Your task to perform on an android device: turn pop-ups off in chrome Image 0: 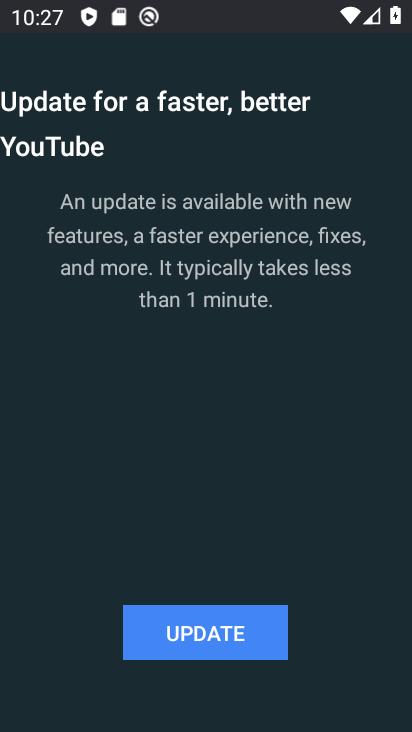
Step 0: press home button
Your task to perform on an android device: turn pop-ups off in chrome Image 1: 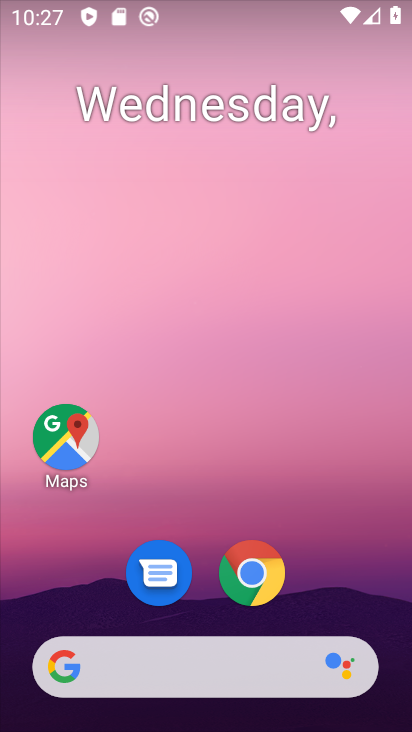
Step 1: click (232, 569)
Your task to perform on an android device: turn pop-ups off in chrome Image 2: 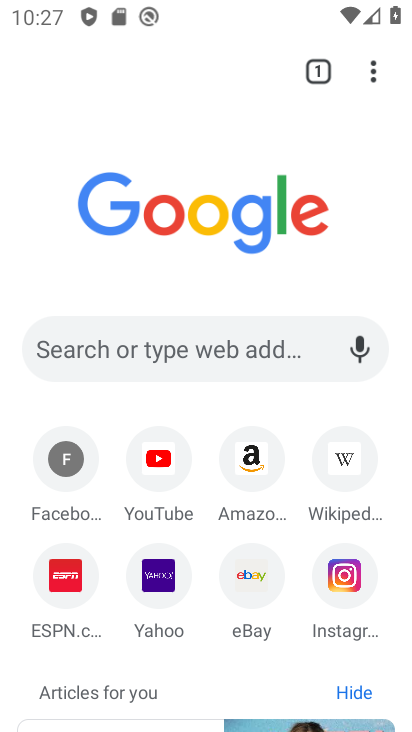
Step 2: drag from (376, 71) to (240, 609)
Your task to perform on an android device: turn pop-ups off in chrome Image 3: 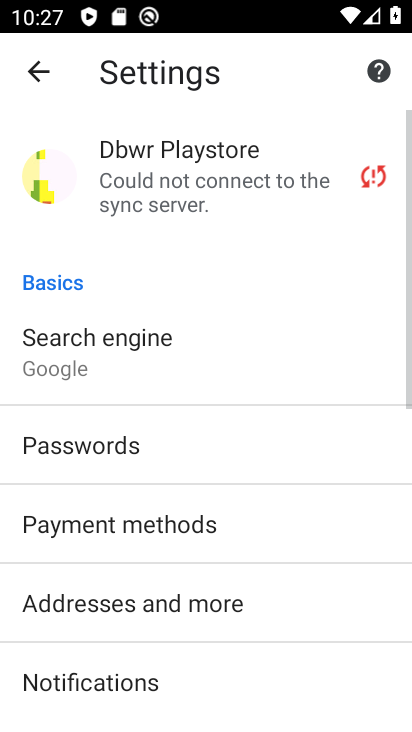
Step 3: drag from (209, 664) to (206, 311)
Your task to perform on an android device: turn pop-ups off in chrome Image 4: 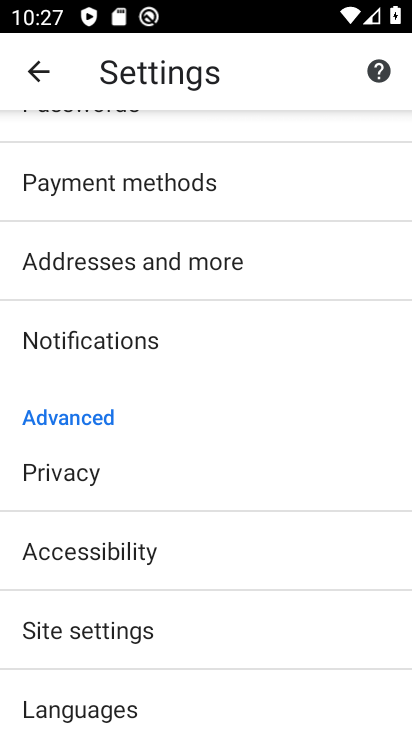
Step 4: drag from (172, 683) to (187, 568)
Your task to perform on an android device: turn pop-ups off in chrome Image 5: 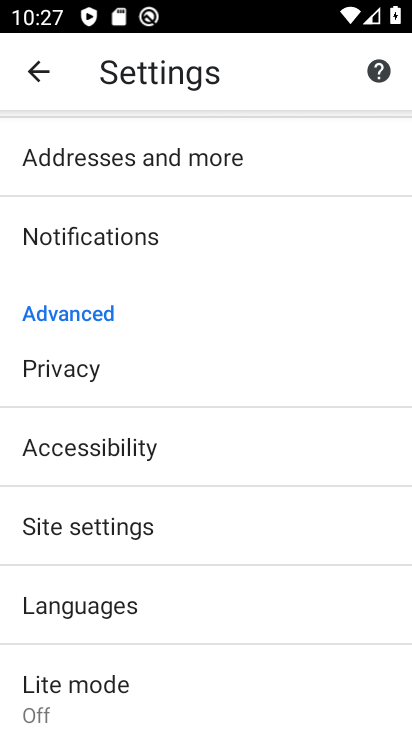
Step 5: drag from (171, 689) to (182, 494)
Your task to perform on an android device: turn pop-ups off in chrome Image 6: 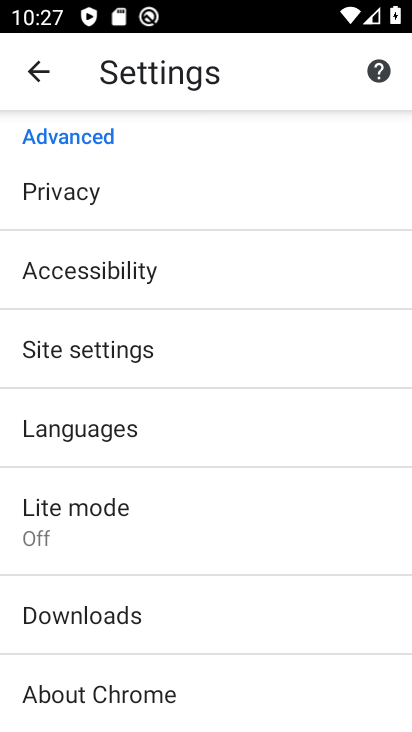
Step 6: drag from (257, 630) to (305, 346)
Your task to perform on an android device: turn pop-ups off in chrome Image 7: 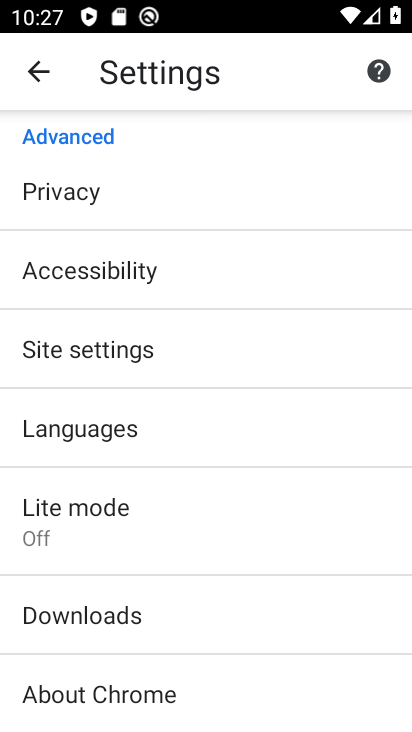
Step 7: drag from (209, 654) to (230, 390)
Your task to perform on an android device: turn pop-ups off in chrome Image 8: 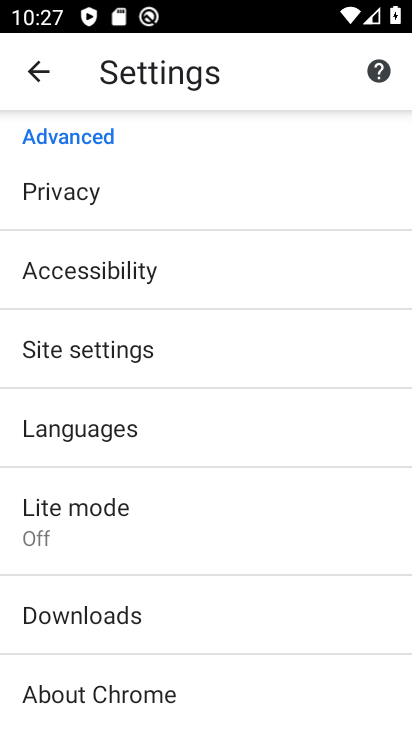
Step 8: drag from (219, 665) to (226, 626)
Your task to perform on an android device: turn pop-ups off in chrome Image 9: 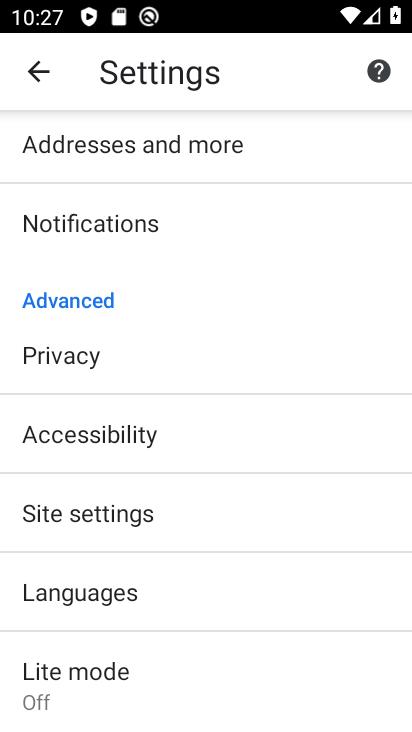
Step 9: click (102, 520)
Your task to perform on an android device: turn pop-ups off in chrome Image 10: 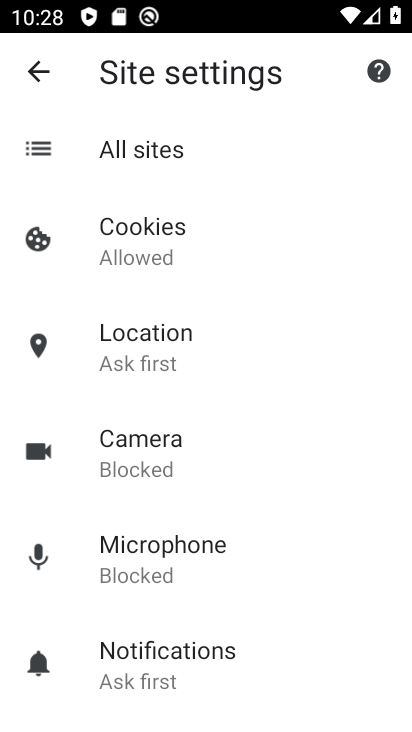
Step 10: drag from (198, 659) to (227, 259)
Your task to perform on an android device: turn pop-ups off in chrome Image 11: 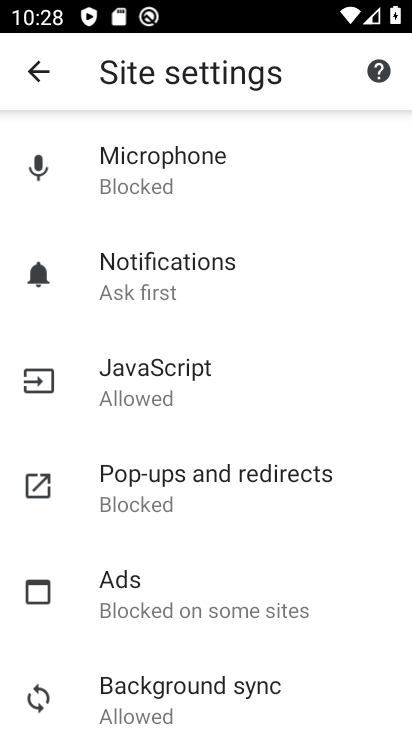
Step 11: click (229, 481)
Your task to perform on an android device: turn pop-ups off in chrome Image 12: 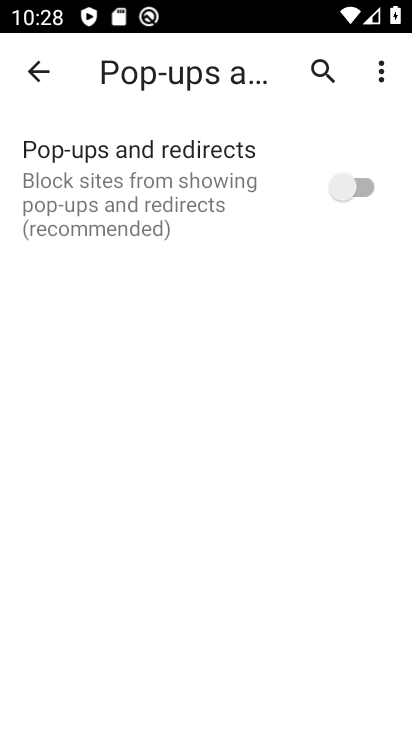
Step 12: task complete